Your task to perform on an android device: Go to battery settings Image 0: 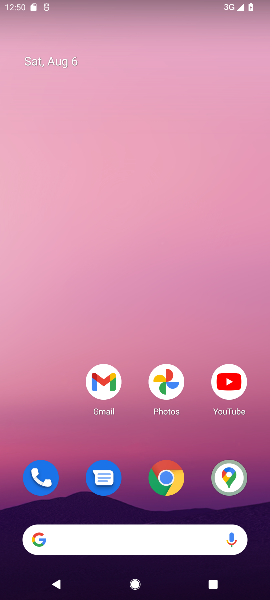
Step 0: drag from (126, 494) to (136, 169)
Your task to perform on an android device: Go to battery settings Image 1: 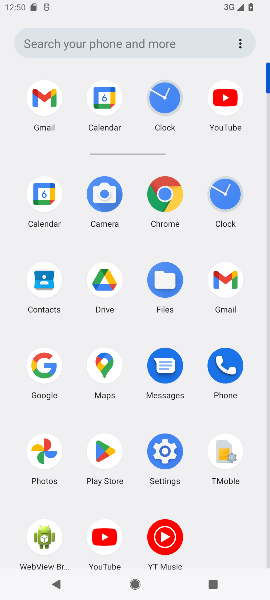
Step 1: click (164, 450)
Your task to perform on an android device: Go to battery settings Image 2: 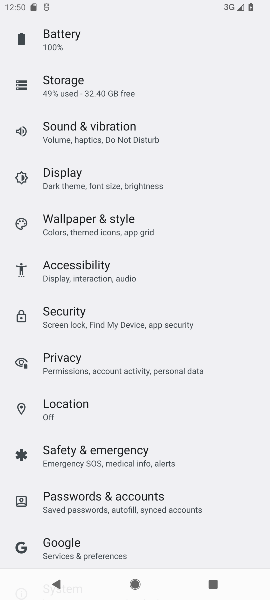
Step 2: click (40, 36)
Your task to perform on an android device: Go to battery settings Image 3: 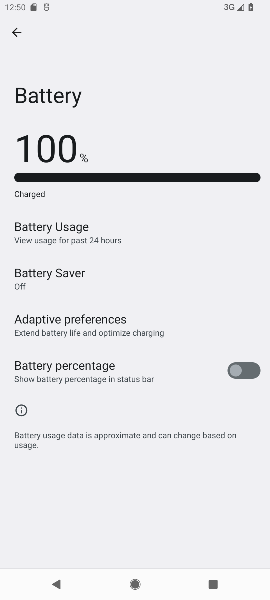
Step 3: task complete